Your task to perform on an android device: open the mobile data screen to see how much data has been used Image 0: 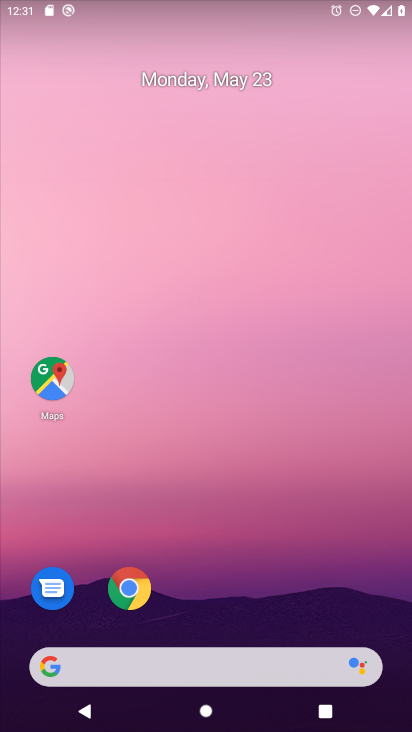
Step 0: press home button
Your task to perform on an android device: open the mobile data screen to see how much data has been used Image 1: 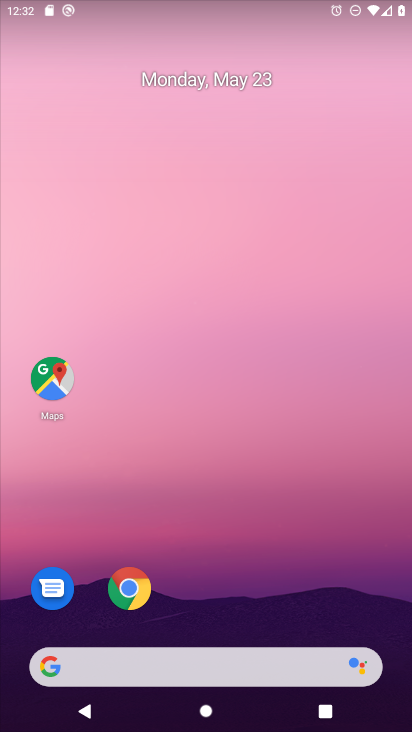
Step 1: drag from (277, 657) to (185, 194)
Your task to perform on an android device: open the mobile data screen to see how much data has been used Image 2: 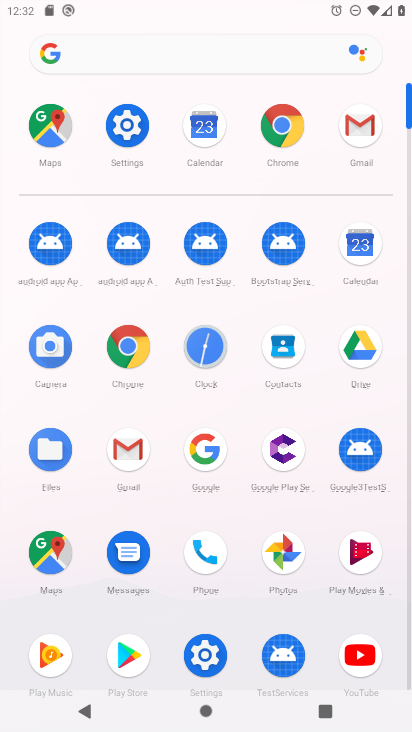
Step 2: click (133, 142)
Your task to perform on an android device: open the mobile data screen to see how much data has been used Image 3: 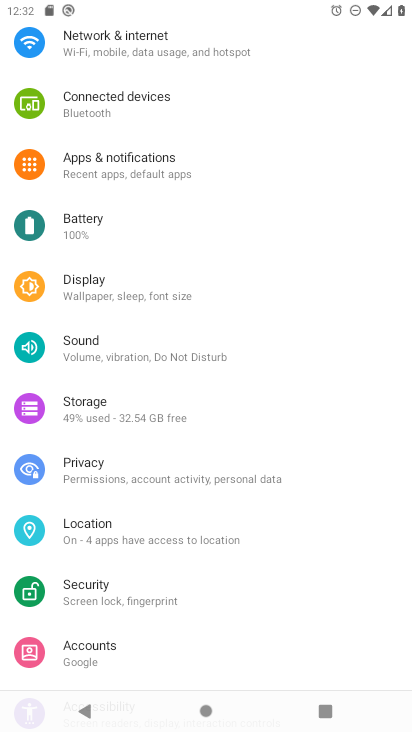
Step 3: drag from (188, 197) to (231, 384)
Your task to perform on an android device: open the mobile data screen to see how much data has been used Image 4: 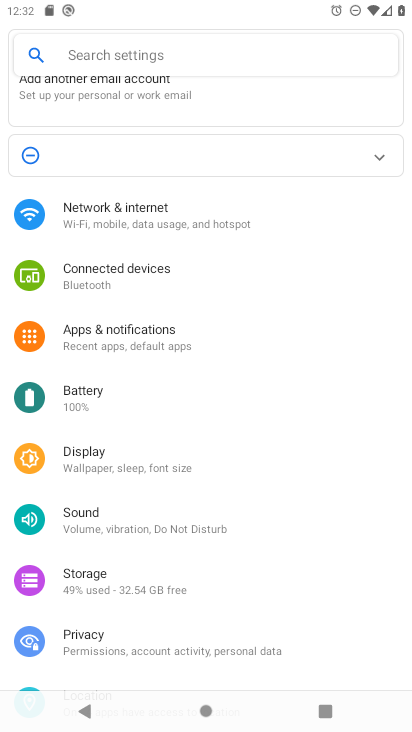
Step 4: click (136, 50)
Your task to perform on an android device: open the mobile data screen to see how much data has been used Image 5: 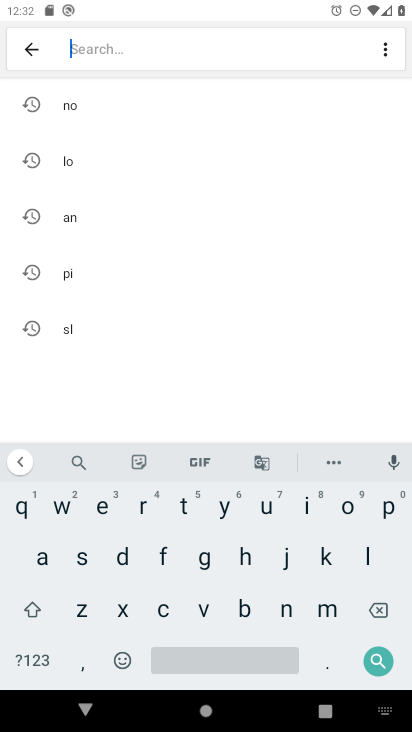
Step 5: click (119, 565)
Your task to perform on an android device: open the mobile data screen to see how much data has been used Image 6: 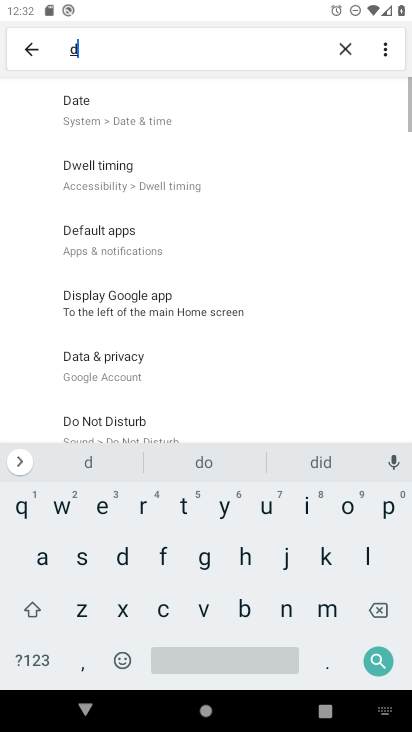
Step 6: click (44, 564)
Your task to perform on an android device: open the mobile data screen to see how much data has been used Image 7: 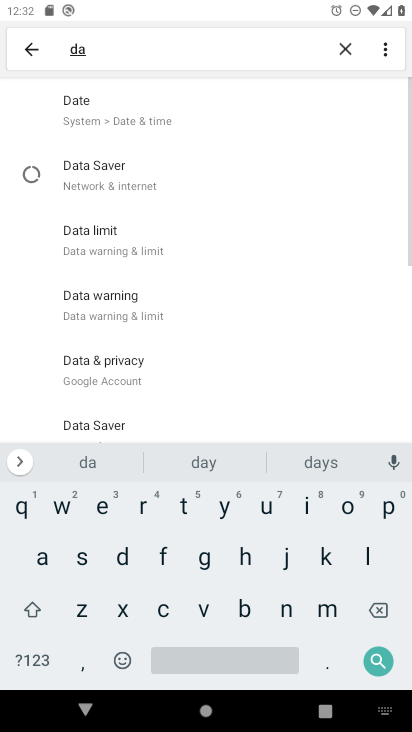
Step 7: click (187, 513)
Your task to perform on an android device: open the mobile data screen to see how much data has been used Image 8: 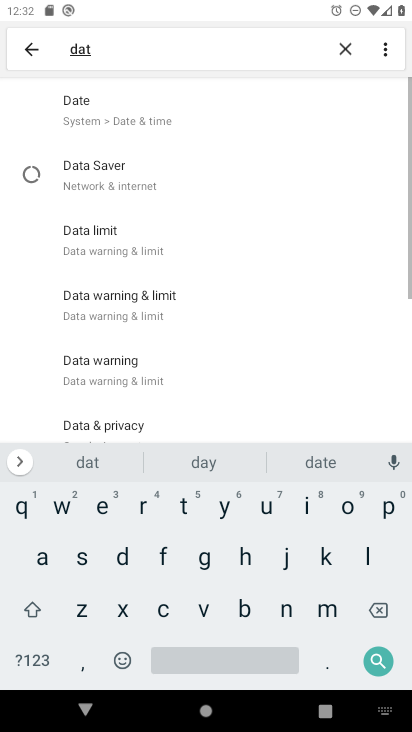
Step 8: click (41, 557)
Your task to perform on an android device: open the mobile data screen to see how much data has been used Image 9: 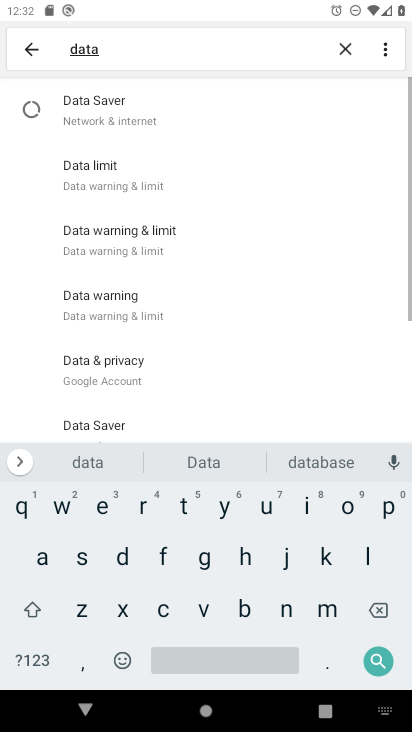
Step 9: click (212, 652)
Your task to perform on an android device: open the mobile data screen to see how much data has been used Image 10: 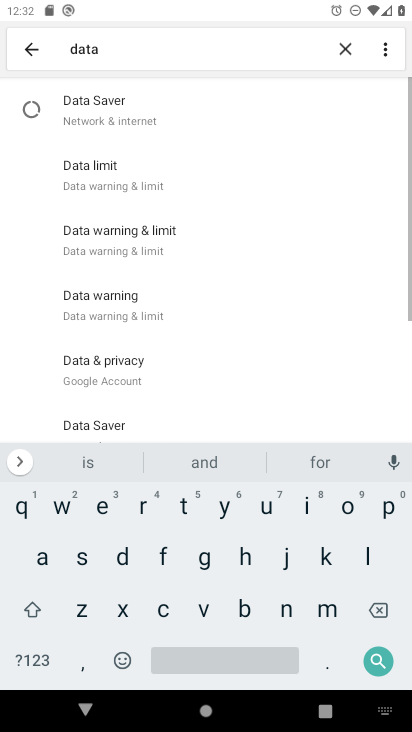
Step 10: click (260, 506)
Your task to perform on an android device: open the mobile data screen to see how much data has been used Image 11: 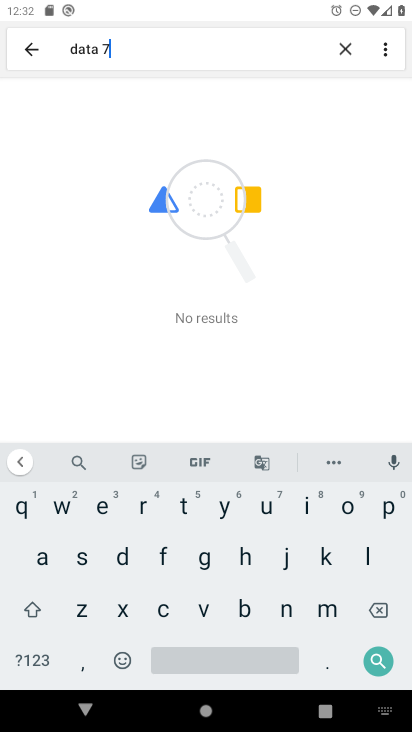
Step 11: click (394, 608)
Your task to perform on an android device: open the mobile data screen to see how much data has been used Image 12: 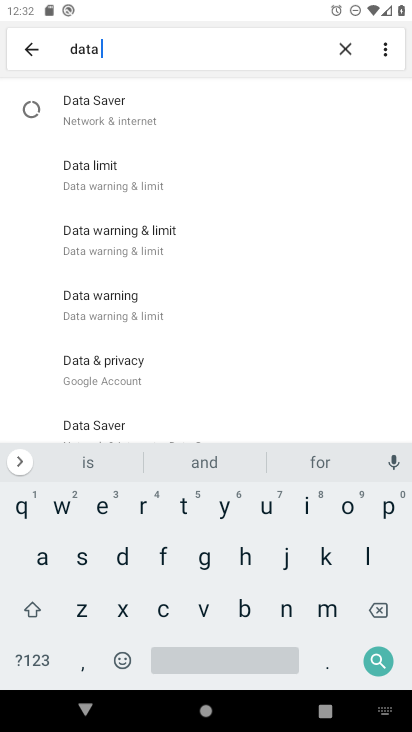
Step 12: click (261, 509)
Your task to perform on an android device: open the mobile data screen to see how much data has been used Image 13: 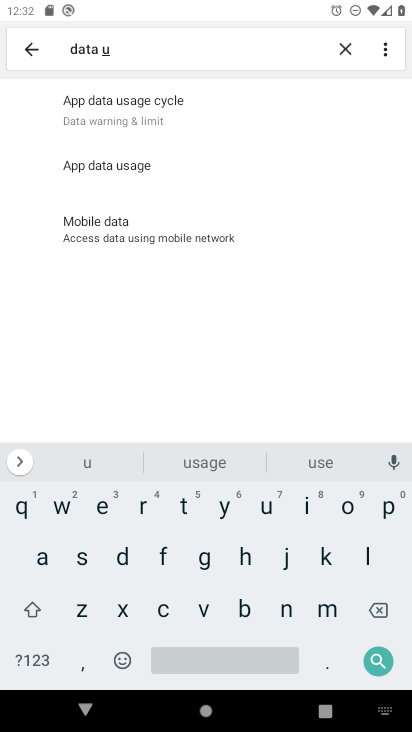
Step 13: click (132, 170)
Your task to perform on an android device: open the mobile data screen to see how much data has been used Image 14: 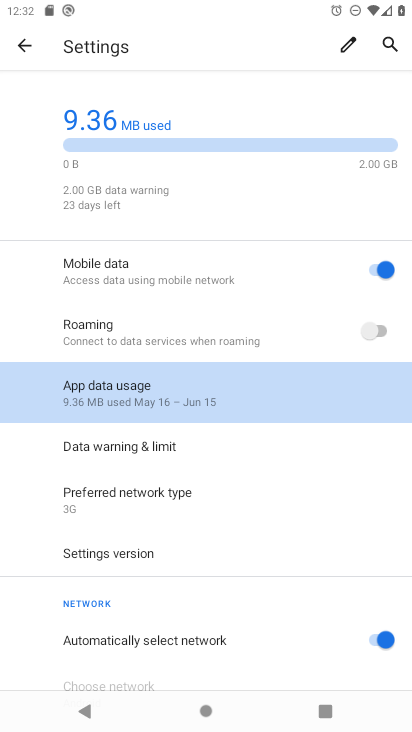
Step 14: click (156, 386)
Your task to perform on an android device: open the mobile data screen to see how much data has been used Image 15: 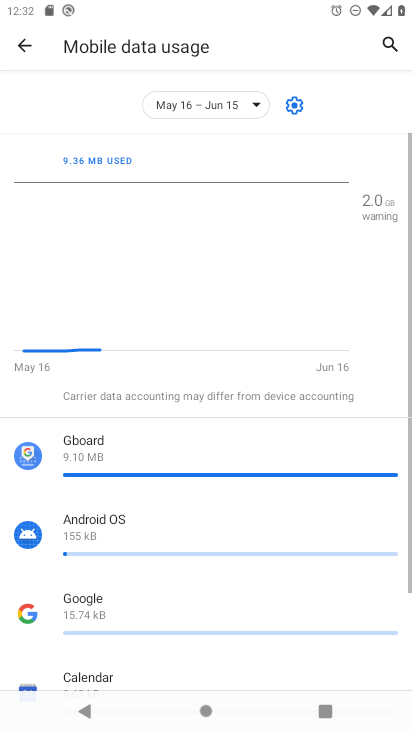
Step 15: task complete